Your task to perform on an android device: find which apps use the phone's location Image 0: 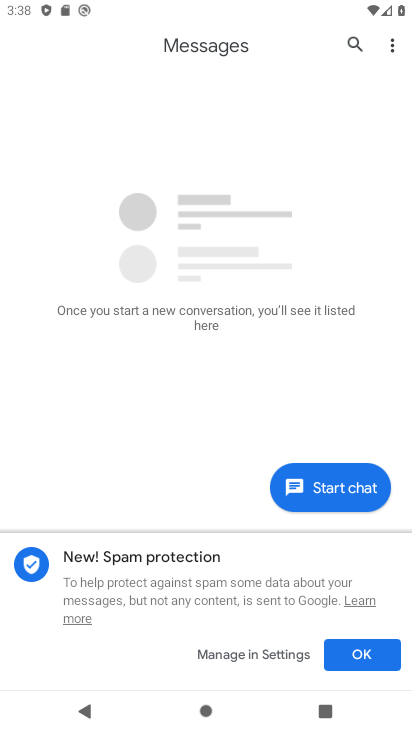
Step 0: press home button
Your task to perform on an android device: find which apps use the phone's location Image 1: 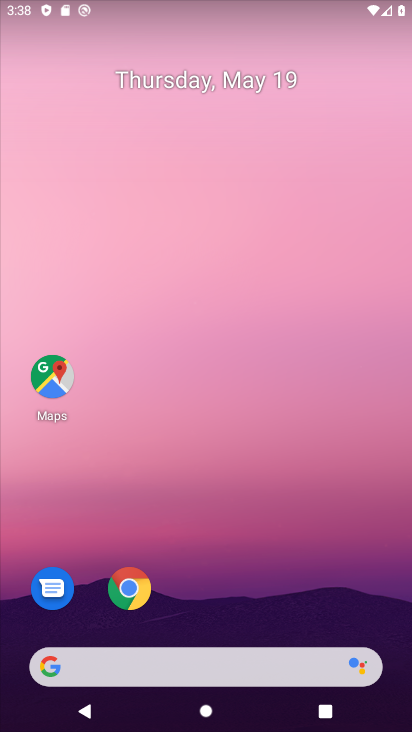
Step 1: drag from (216, 618) to (259, 116)
Your task to perform on an android device: find which apps use the phone's location Image 2: 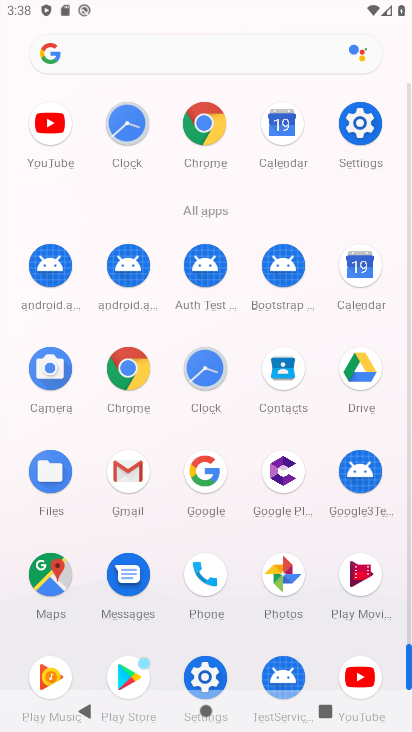
Step 2: click (209, 667)
Your task to perform on an android device: find which apps use the phone's location Image 3: 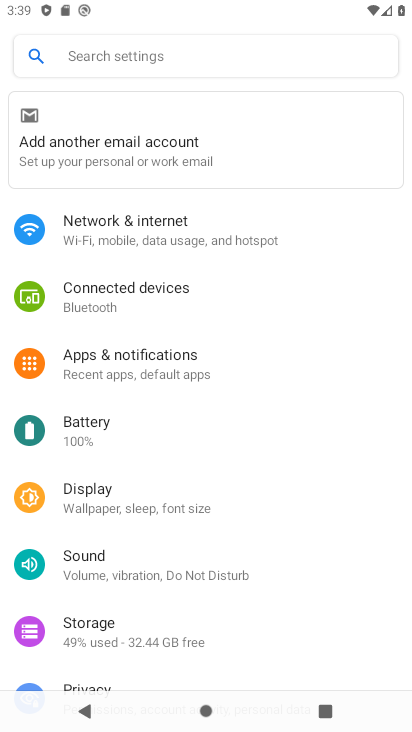
Step 3: drag from (137, 609) to (156, 413)
Your task to perform on an android device: find which apps use the phone's location Image 4: 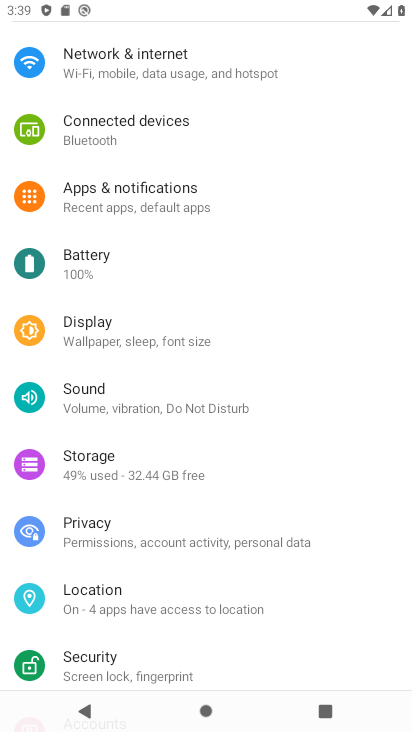
Step 4: click (102, 589)
Your task to perform on an android device: find which apps use the phone's location Image 5: 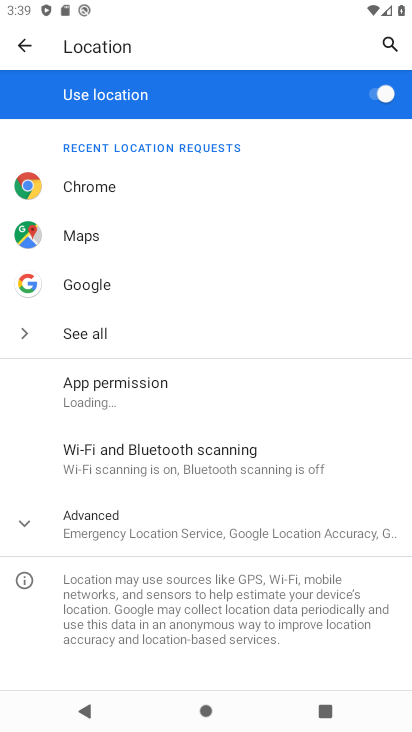
Step 5: click (115, 392)
Your task to perform on an android device: find which apps use the phone's location Image 6: 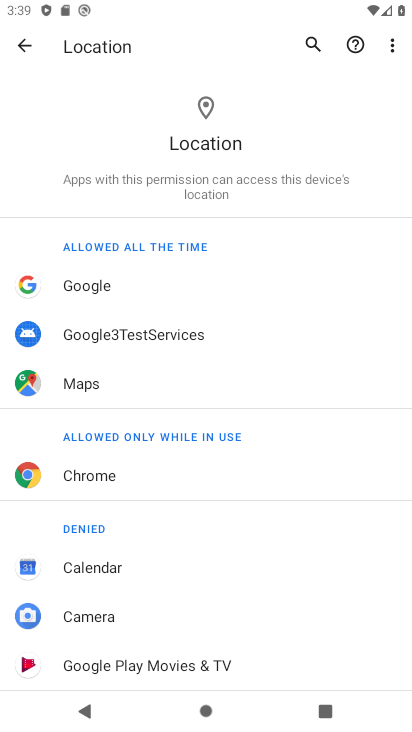
Step 6: task complete